Your task to perform on an android device: Go to Google maps Image 0: 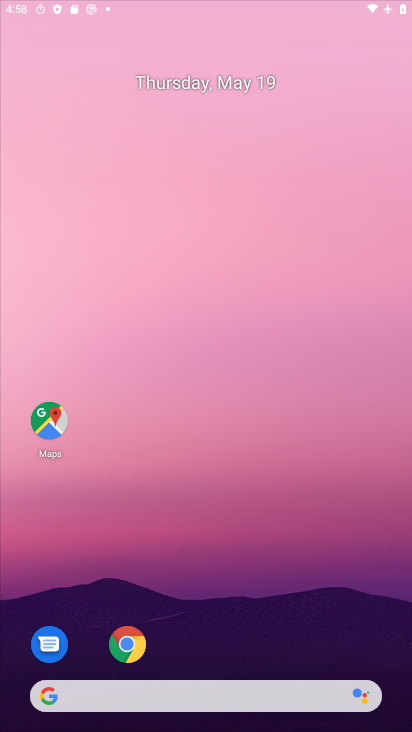
Step 0: drag from (183, 681) to (249, 222)
Your task to perform on an android device: Go to Google maps Image 1: 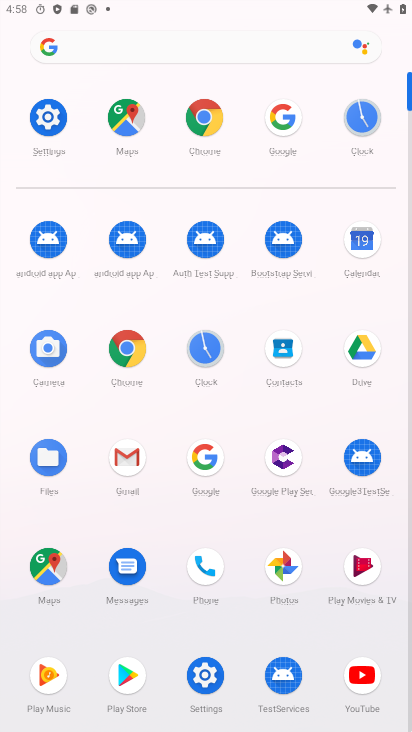
Step 1: click (117, 127)
Your task to perform on an android device: Go to Google maps Image 2: 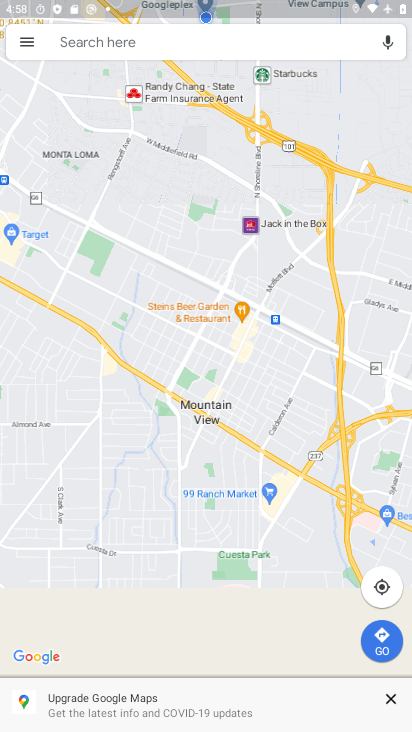
Step 2: task complete